Your task to perform on an android device: Open wifi settings Image 0: 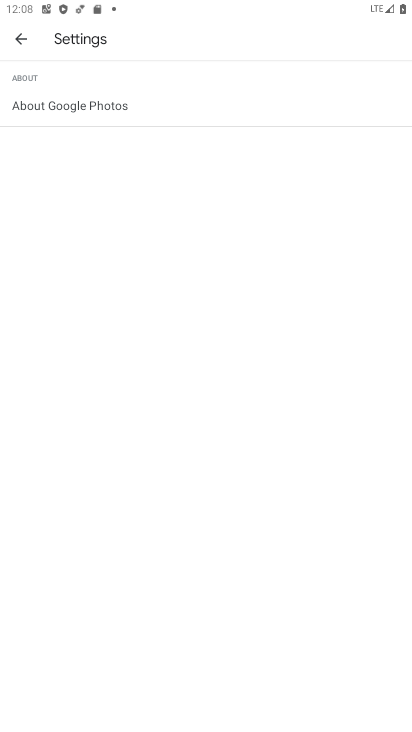
Step 0: press home button
Your task to perform on an android device: Open wifi settings Image 1: 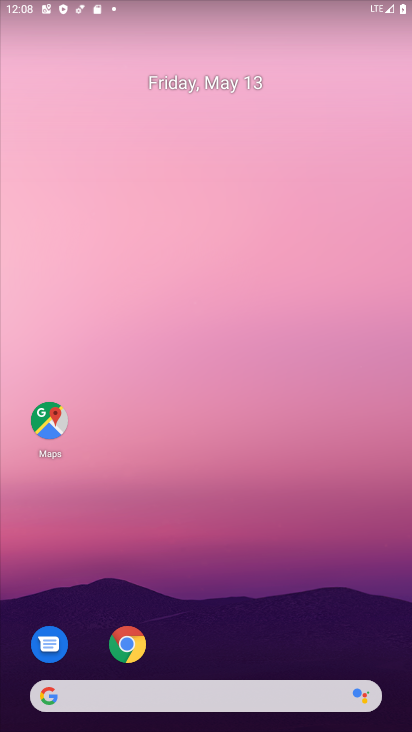
Step 1: drag from (333, 618) to (195, 142)
Your task to perform on an android device: Open wifi settings Image 2: 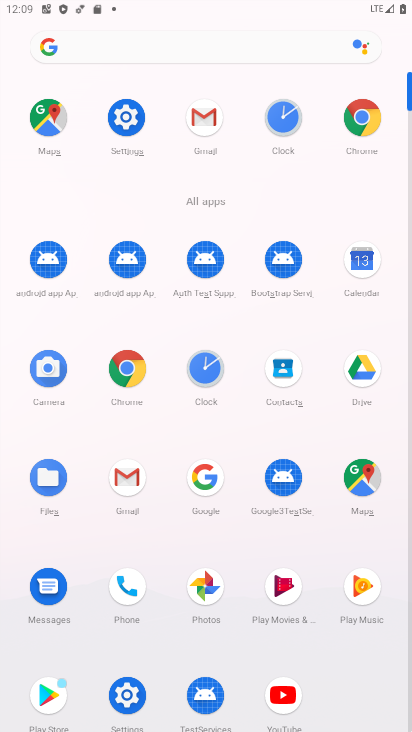
Step 2: click (135, 684)
Your task to perform on an android device: Open wifi settings Image 3: 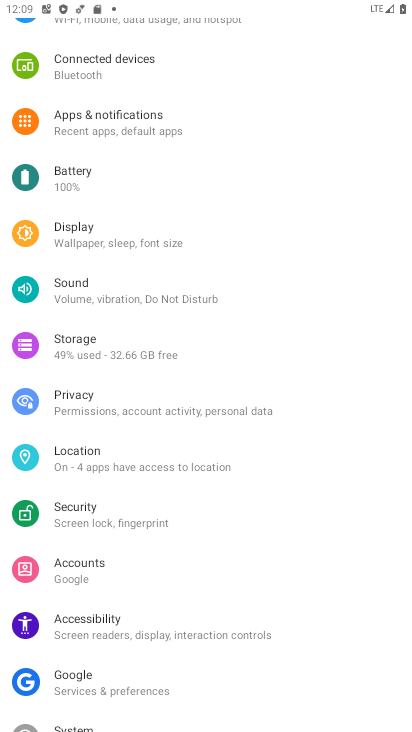
Step 3: drag from (229, 98) to (191, 647)
Your task to perform on an android device: Open wifi settings Image 4: 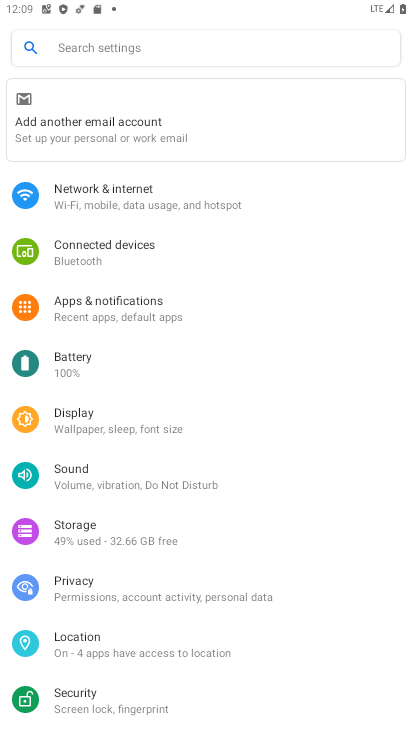
Step 4: click (152, 215)
Your task to perform on an android device: Open wifi settings Image 5: 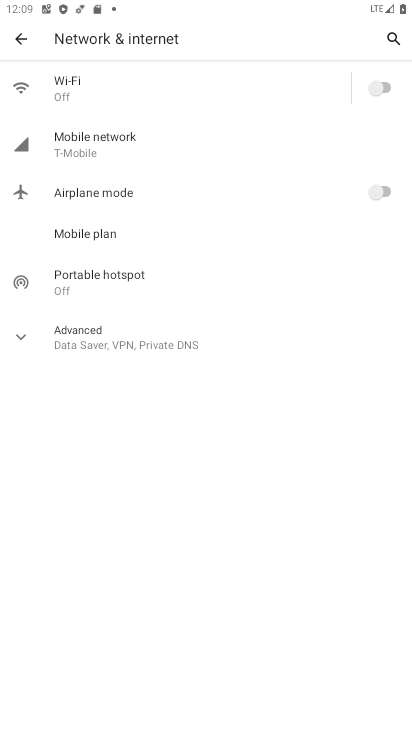
Step 5: click (245, 95)
Your task to perform on an android device: Open wifi settings Image 6: 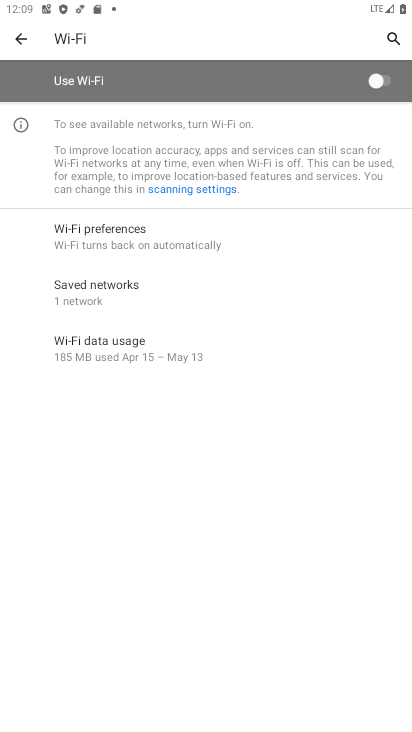
Step 6: task complete